Your task to perform on an android device: turn off smart reply in the gmail app Image 0: 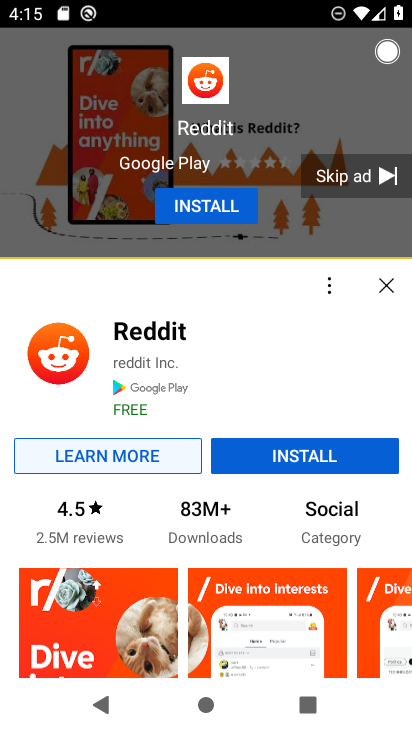
Step 0: press home button
Your task to perform on an android device: turn off smart reply in the gmail app Image 1: 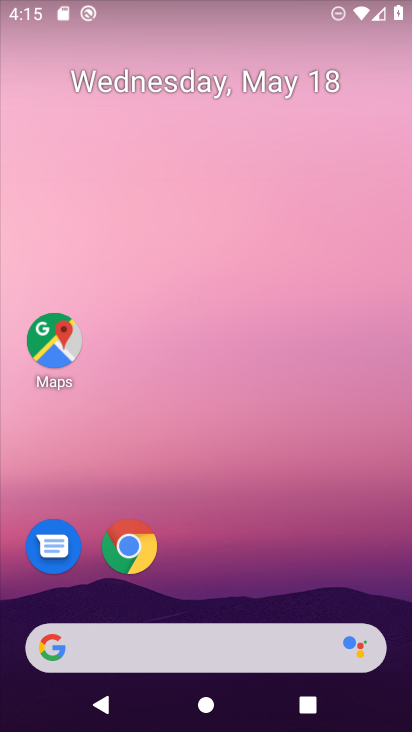
Step 1: drag from (243, 598) to (360, 69)
Your task to perform on an android device: turn off smart reply in the gmail app Image 2: 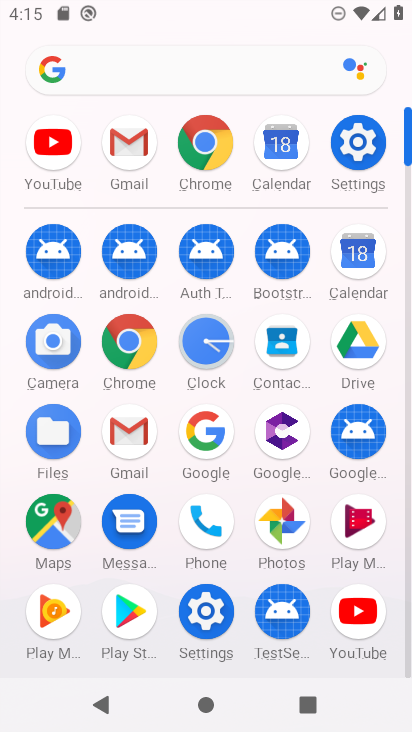
Step 2: click (112, 434)
Your task to perform on an android device: turn off smart reply in the gmail app Image 3: 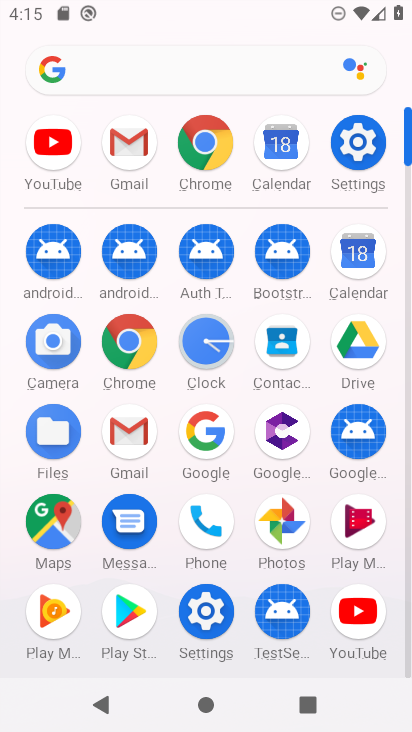
Step 3: click (123, 440)
Your task to perform on an android device: turn off smart reply in the gmail app Image 4: 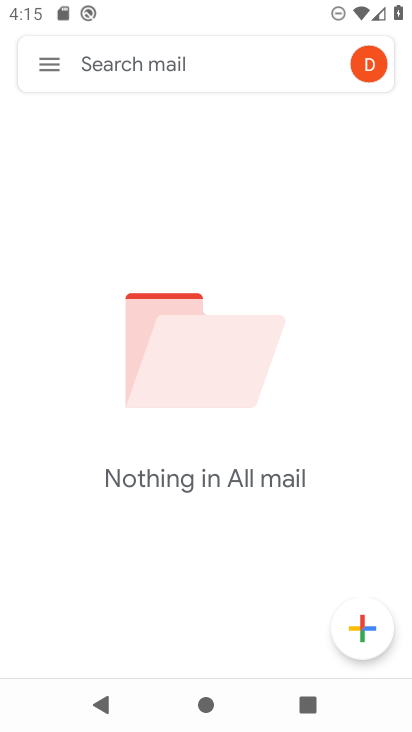
Step 4: click (52, 71)
Your task to perform on an android device: turn off smart reply in the gmail app Image 5: 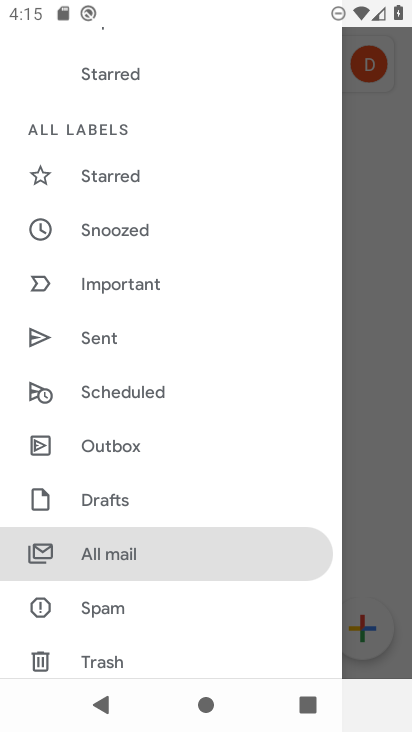
Step 5: drag from (108, 558) to (154, 276)
Your task to perform on an android device: turn off smart reply in the gmail app Image 6: 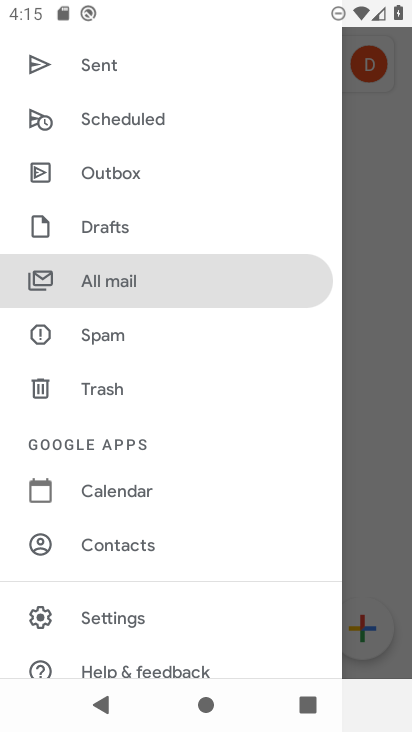
Step 6: click (114, 628)
Your task to perform on an android device: turn off smart reply in the gmail app Image 7: 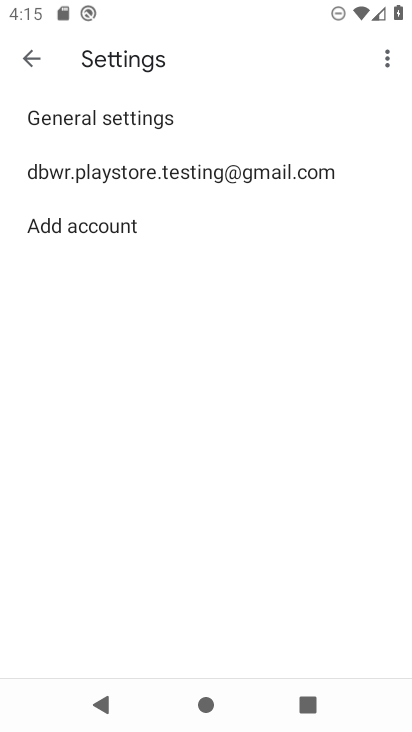
Step 7: click (135, 174)
Your task to perform on an android device: turn off smart reply in the gmail app Image 8: 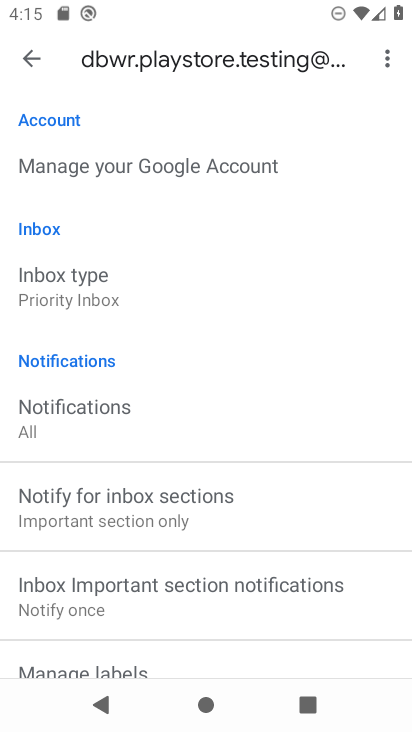
Step 8: drag from (157, 578) to (226, 257)
Your task to perform on an android device: turn off smart reply in the gmail app Image 9: 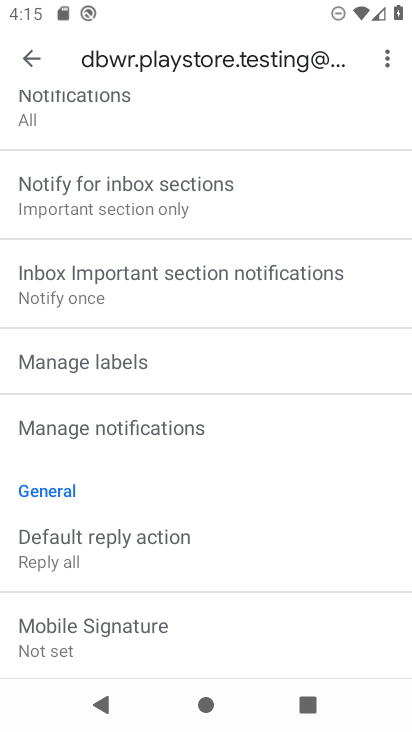
Step 9: drag from (186, 597) to (241, 304)
Your task to perform on an android device: turn off smart reply in the gmail app Image 10: 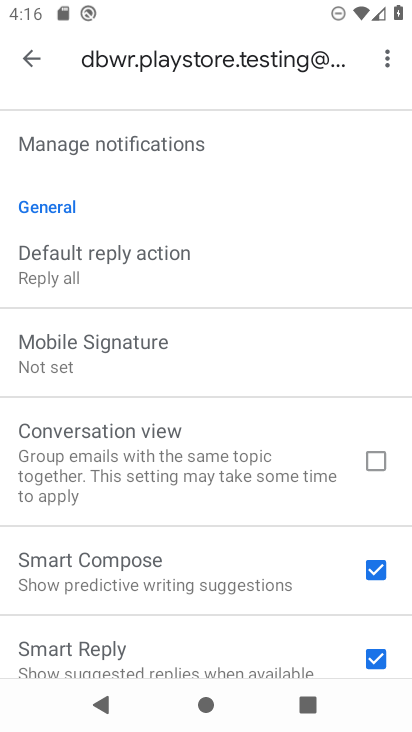
Step 10: drag from (174, 609) to (225, 343)
Your task to perform on an android device: turn off smart reply in the gmail app Image 11: 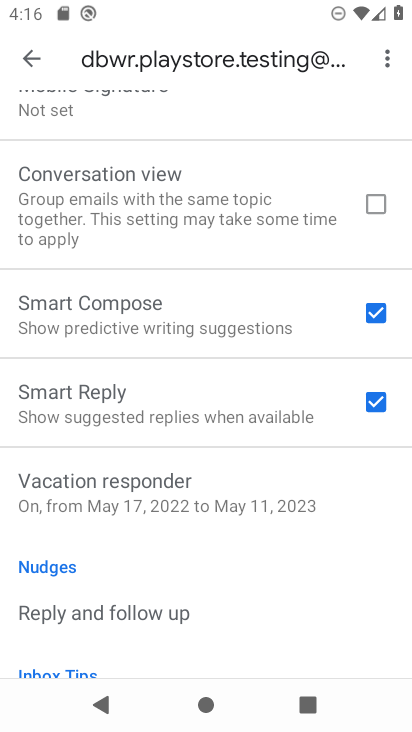
Step 11: click (366, 398)
Your task to perform on an android device: turn off smart reply in the gmail app Image 12: 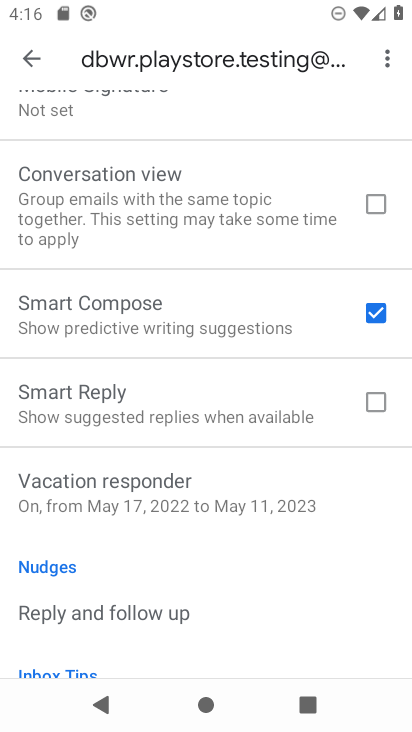
Step 12: task complete